Your task to perform on an android device: Open internet settings Image 0: 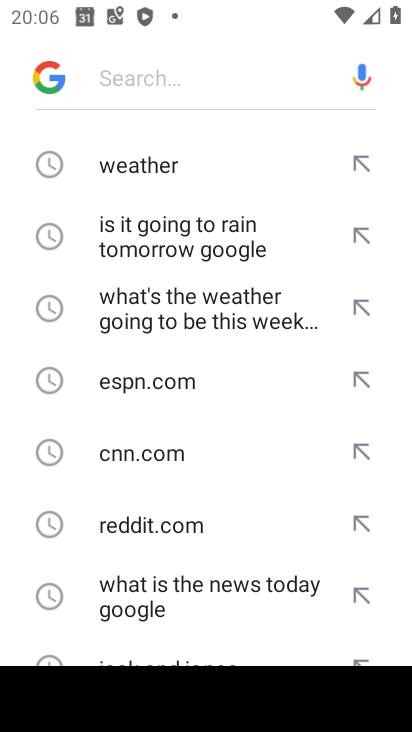
Step 0: press home button
Your task to perform on an android device: Open internet settings Image 1: 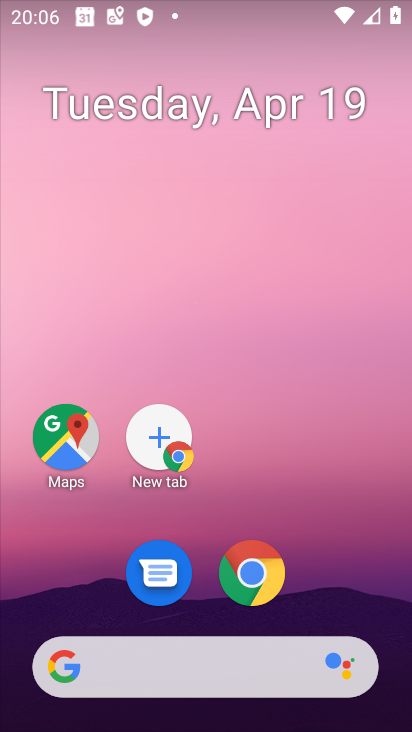
Step 1: drag from (352, 518) to (350, 99)
Your task to perform on an android device: Open internet settings Image 2: 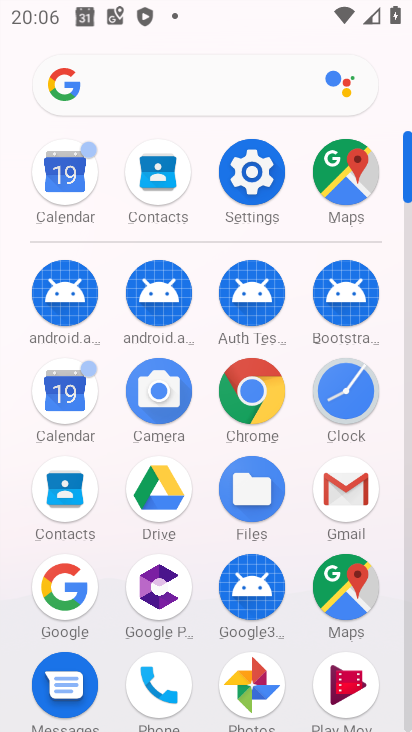
Step 2: click (254, 159)
Your task to perform on an android device: Open internet settings Image 3: 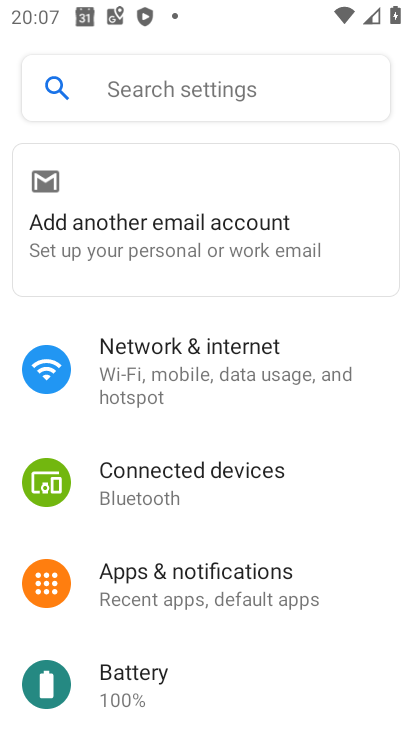
Step 3: click (144, 363)
Your task to perform on an android device: Open internet settings Image 4: 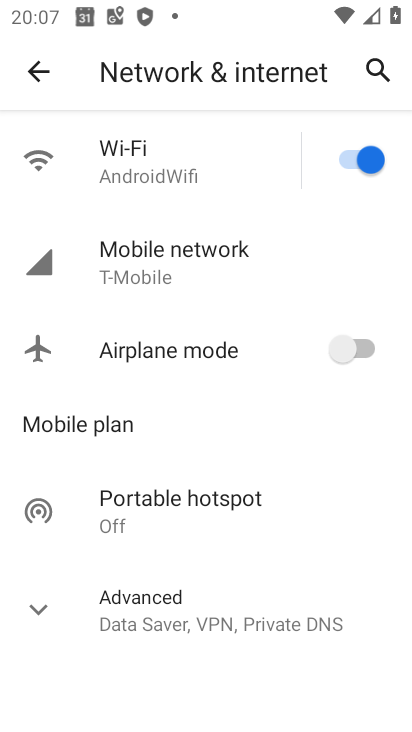
Step 4: drag from (279, 575) to (236, 178)
Your task to perform on an android device: Open internet settings Image 5: 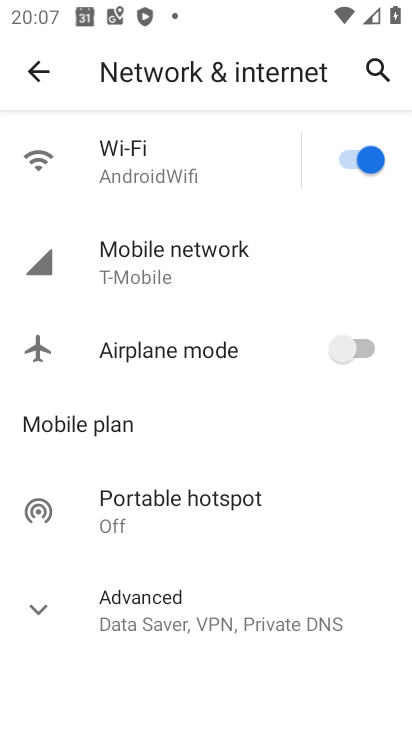
Step 5: click (115, 263)
Your task to perform on an android device: Open internet settings Image 6: 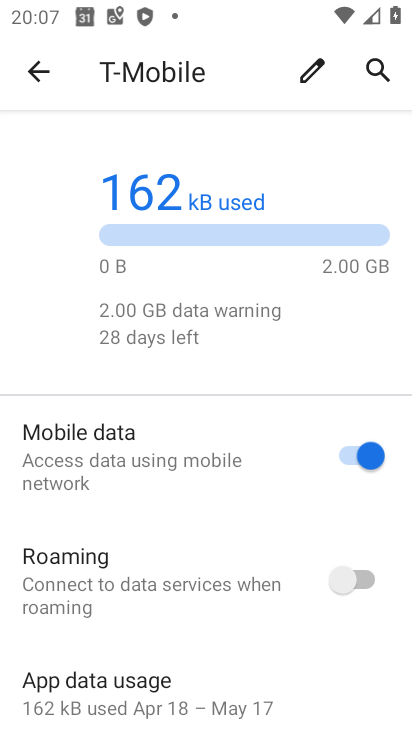
Step 6: click (153, 253)
Your task to perform on an android device: Open internet settings Image 7: 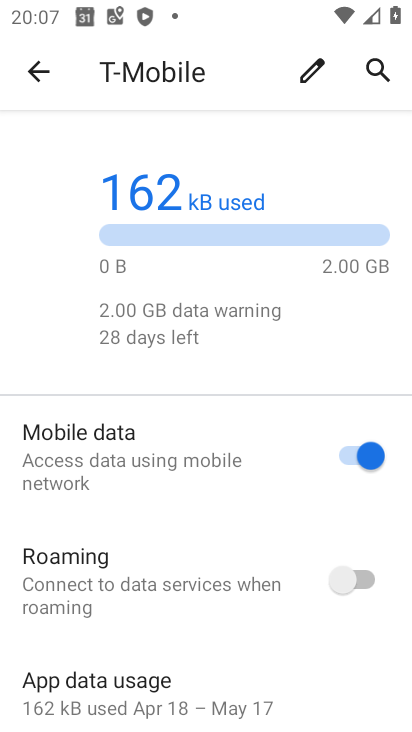
Step 7: click (109, 247)
Your task to perform on an android device: Open internet settings Image 8: 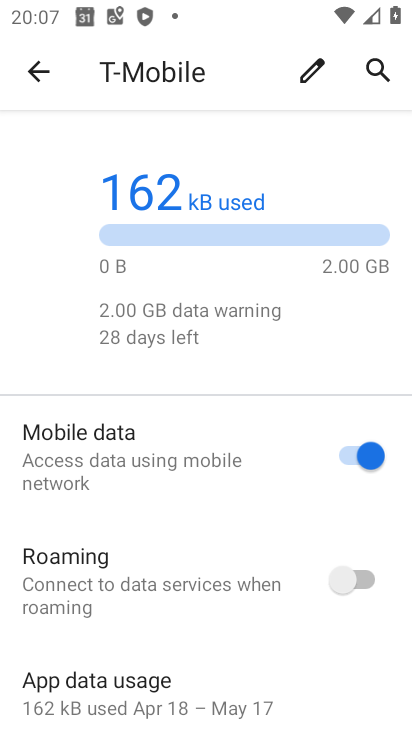
Step 8: task complete